Your task to perform on an android device: create a new album in the google photos Image 0: 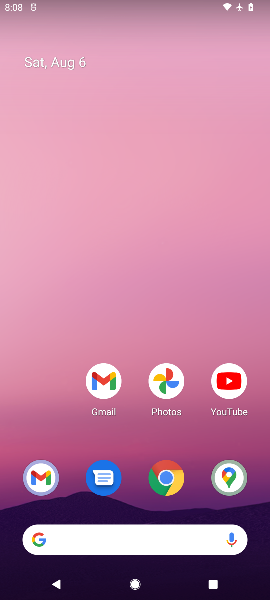
Step 0: press home button
Your task to perform on an android device: create a new album in the google photos Image 1: 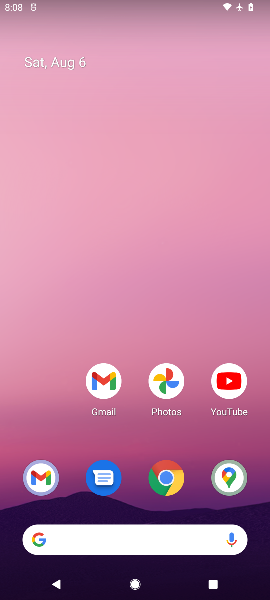
Step 1: click (163, 381)
Your task to perform on an android device: create a new album in the google photos Image 2: 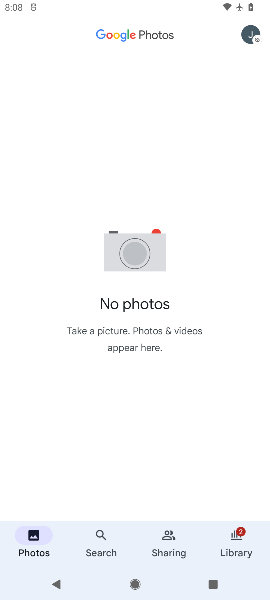
Step 2: click (26, 521)
Your task to perform on an android device: create a new album in the google photos Image 3: 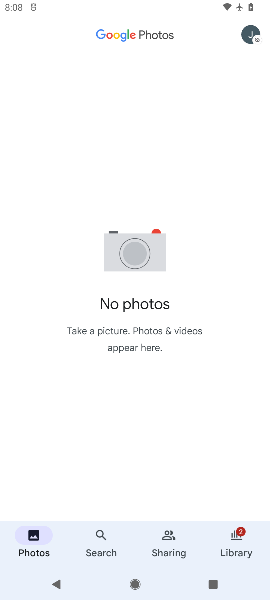
Step 3: click (88, 539)
Your task to perform on an android device: create a new album in the google photos Image 4: 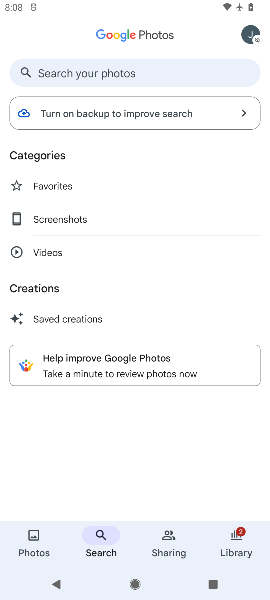
Step 4: task complete